Your task to perform on an android device: toggle location history Image 0: 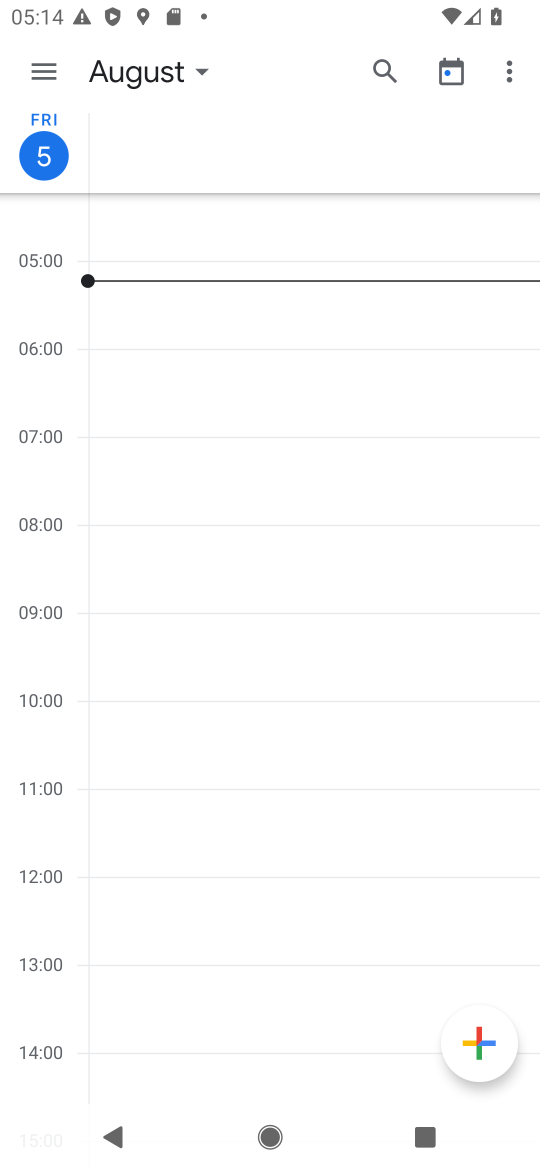
Step 0: press home button
Your task to perform on an android device: toggle location history Image 1: 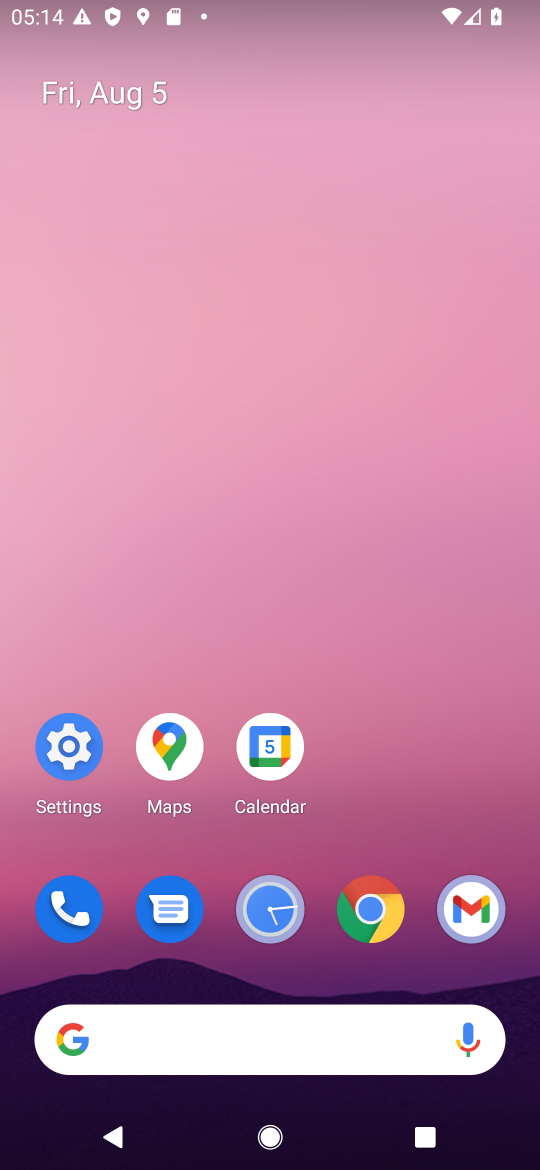
Step 1: click (70, 749)
Your task to perform on an android device: toggle location history Image 2: 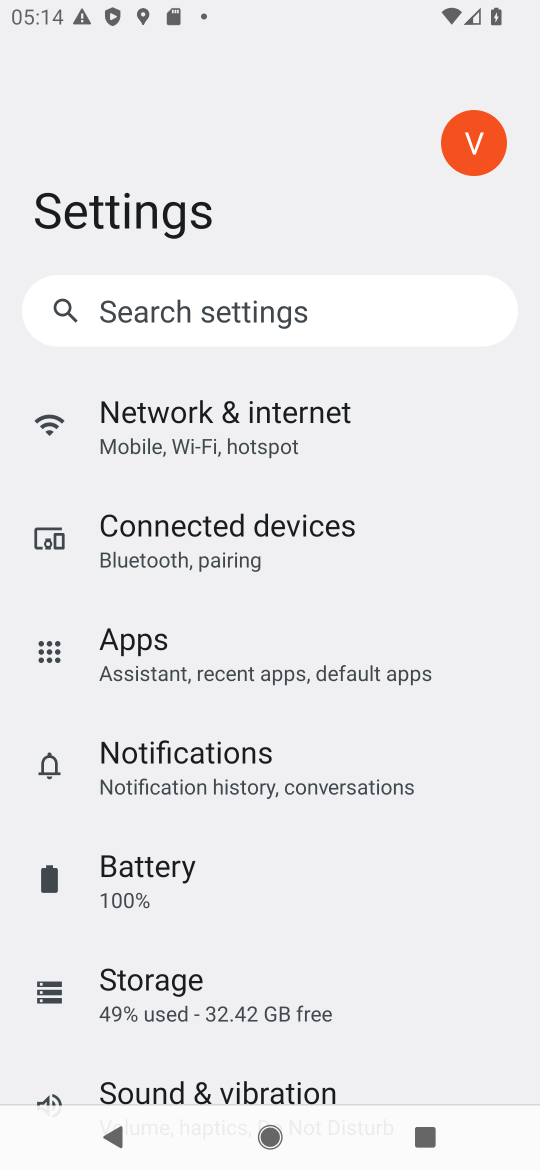
Step 2: drag from (385, 975) to (373, 304)
Your task to perform on an android device: toggle location history Image 3: 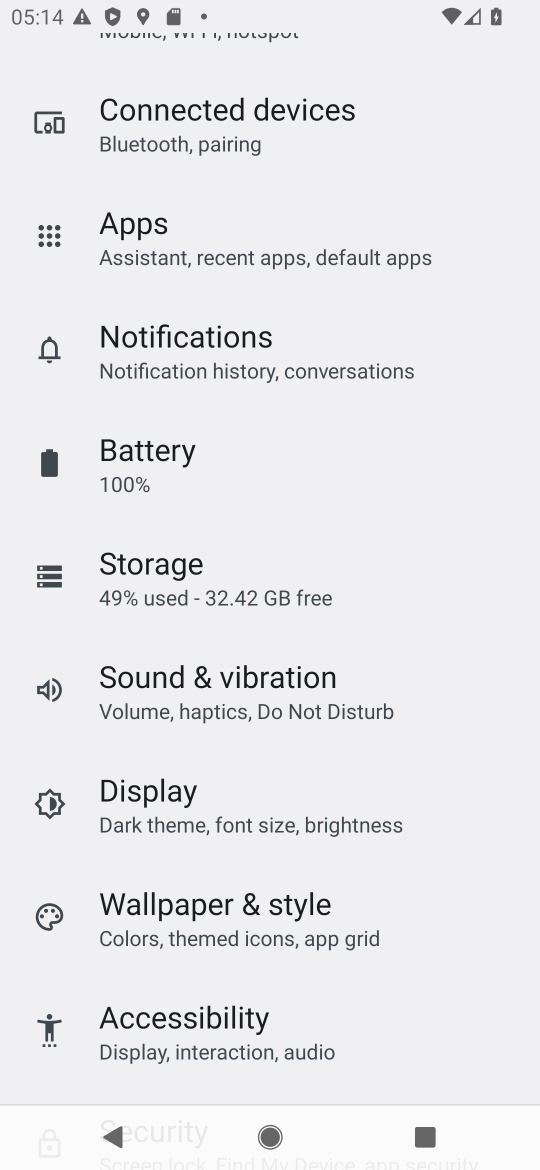
Step 3: drag from (343, 1007) to (343, 284)
Your task to perform on an android device: toggle location history Image 4: 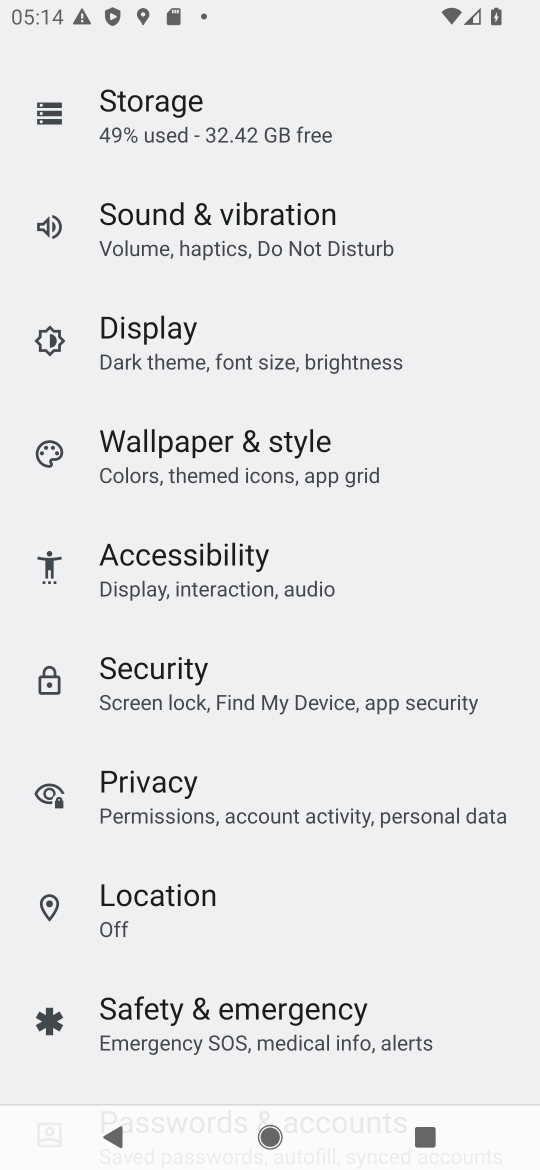
Step 4: click (188, 888)
Your task to perform on an android device: toggle location history Image 5: 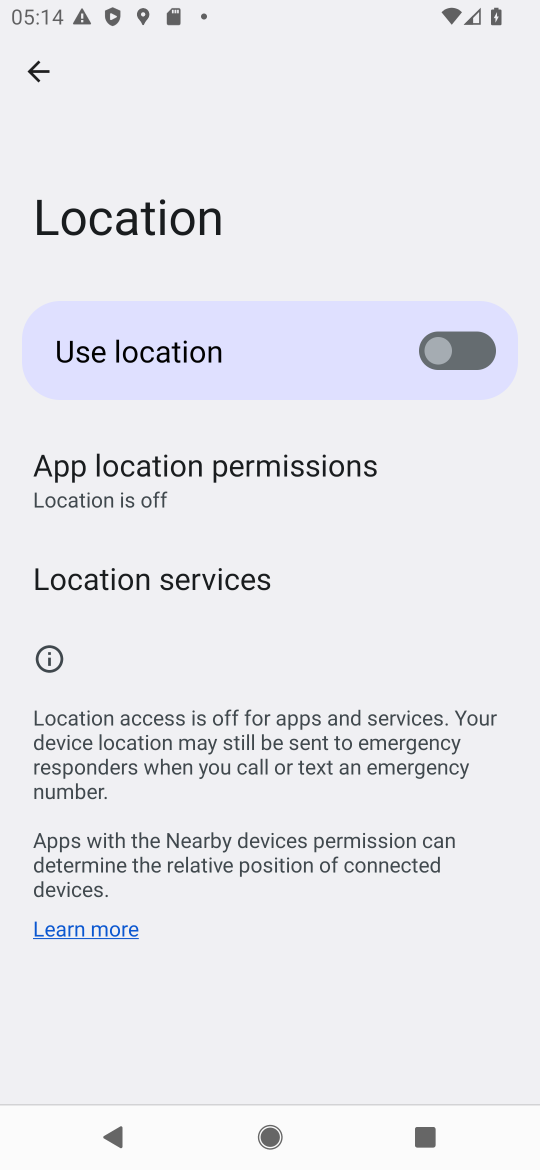
Step 5: click (173, 585)
Your task to perform on an android device: toggle location history Image 6: 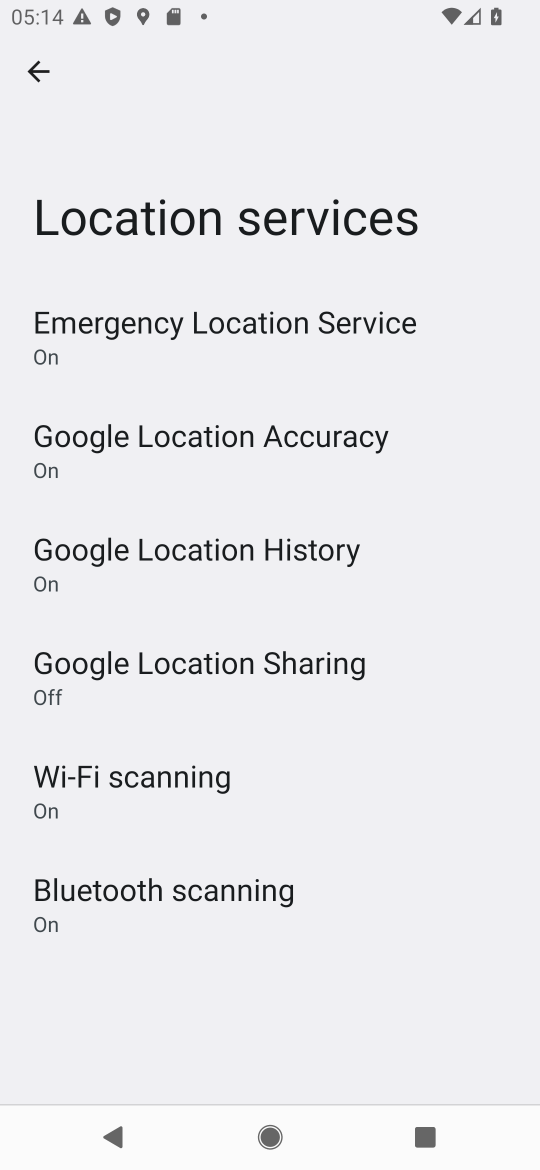
Step 6: click (211, 549)
Your task to perform on an android device: toggle location history Image 7: 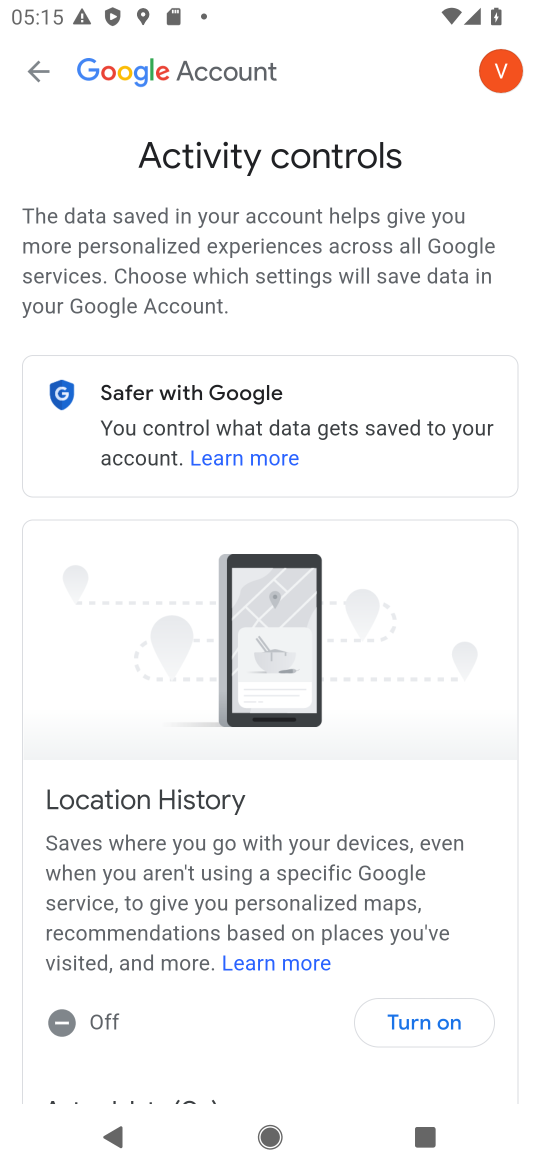
Step 7: click (426, 1024)
Your task to perform on an android device: toggle location history Image 8: 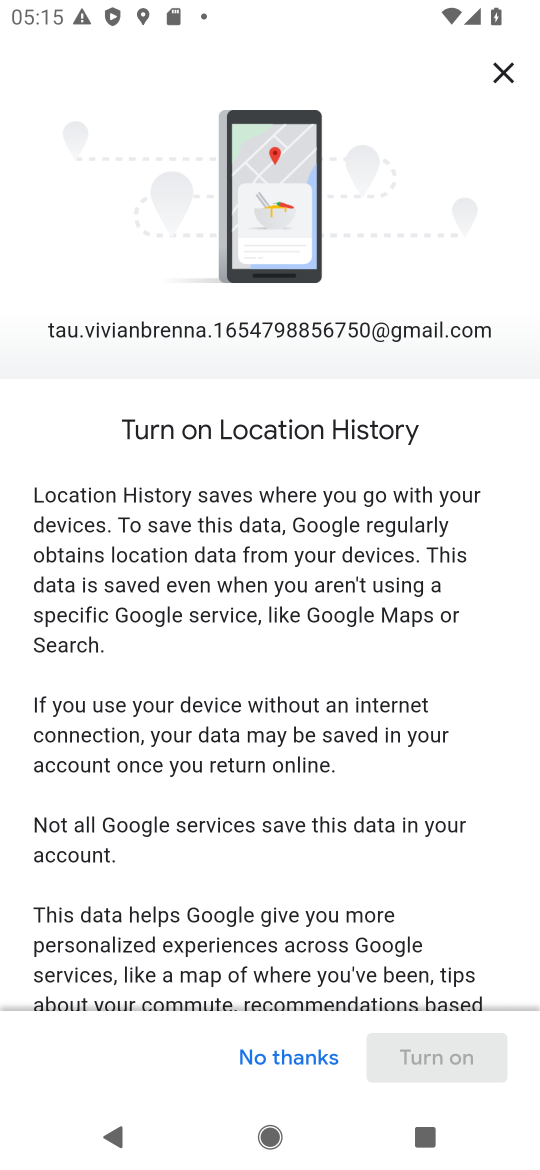
Step 8: drag from (373, 876) to (369, 558)
Your task to perform on an android device: toggle location history Image 9: 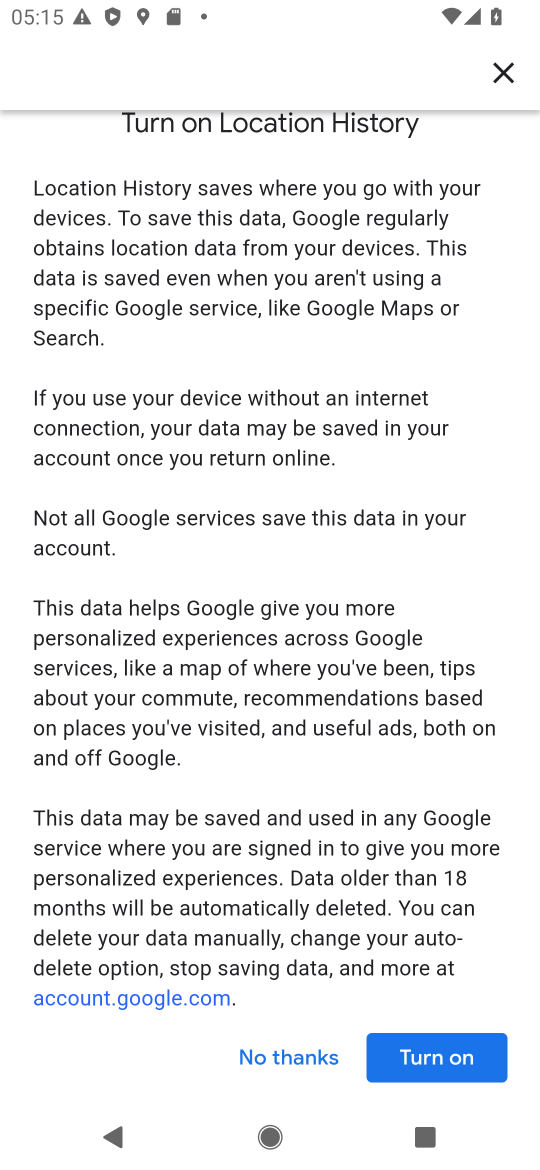
Step 9: drag from (346, 924) to (329, 166)
Your task to perform on an android device: toggle location history Image 10: 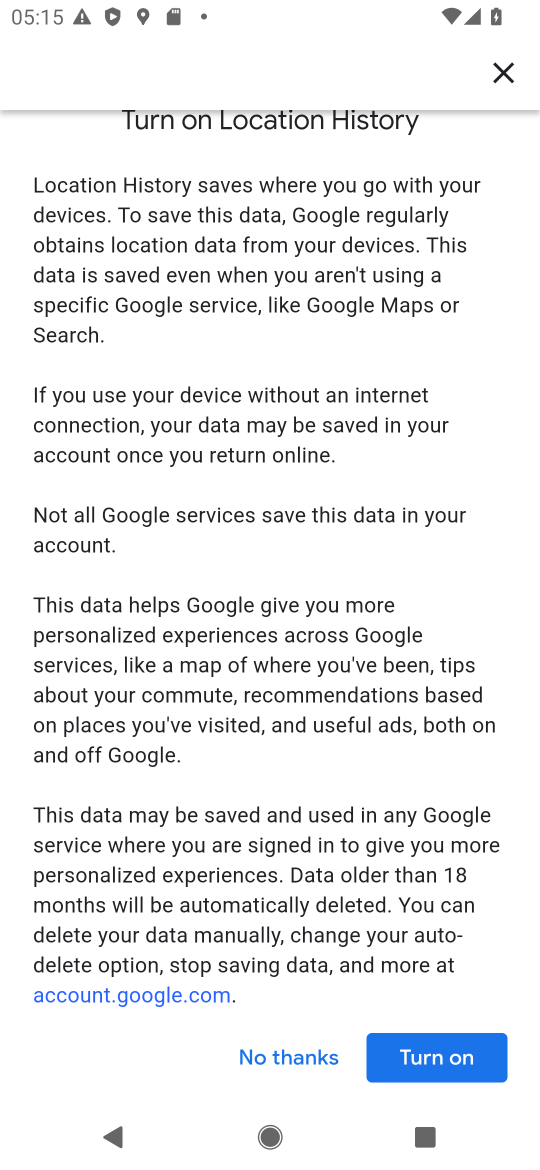
Step 10: click (425, 1054)
Your task to perform on an android device: toggle location history Image 11: 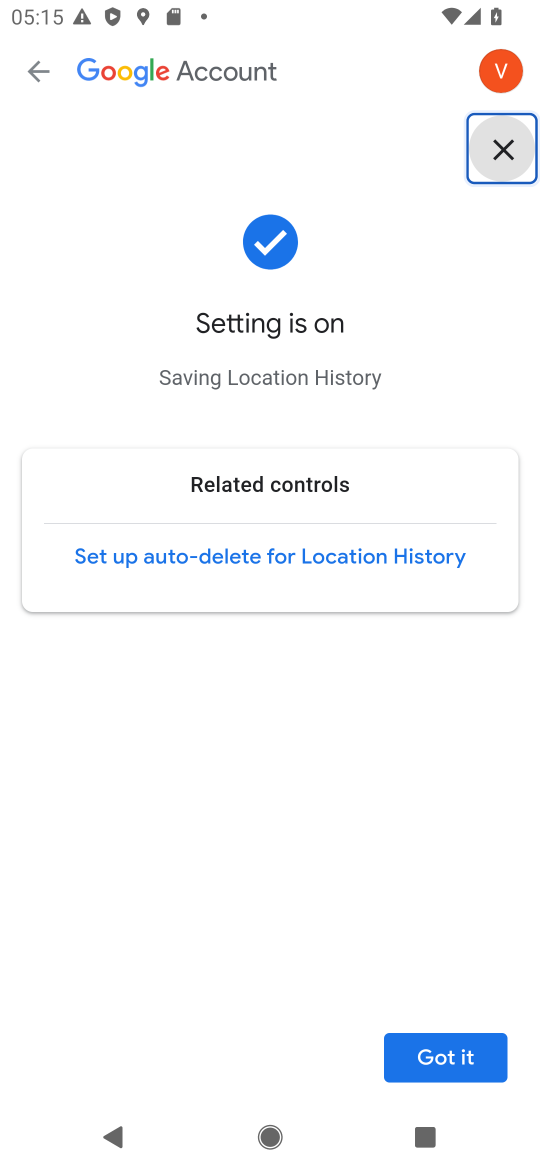
Step 11: click (436, 1055)
Your task to perform on an android device: toggle location history Image 12: 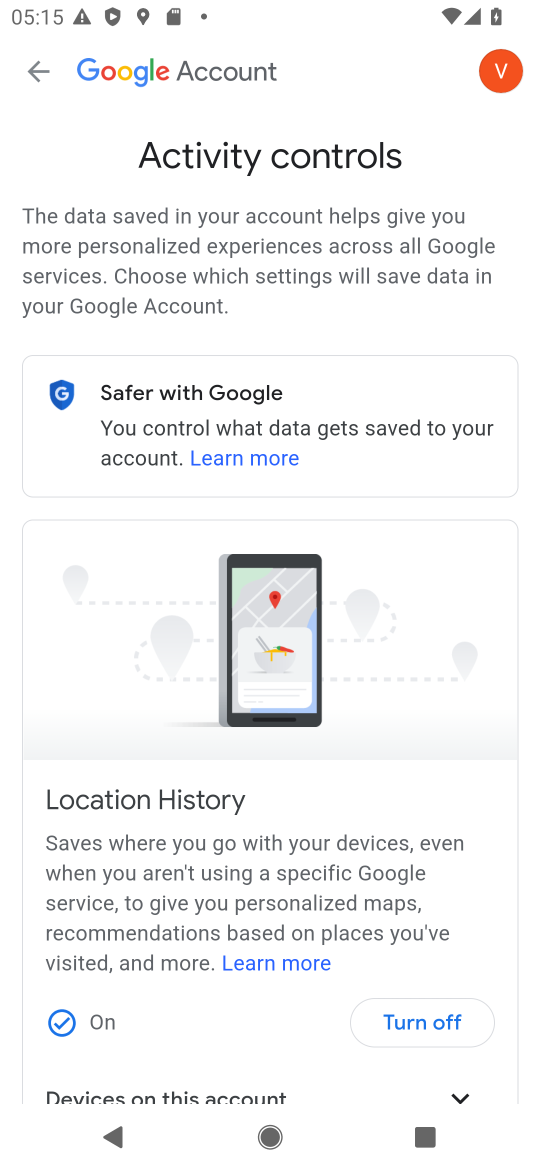
Step 12: task complete